Your task to perform on an android device: Turn off the flashlight Image 0: 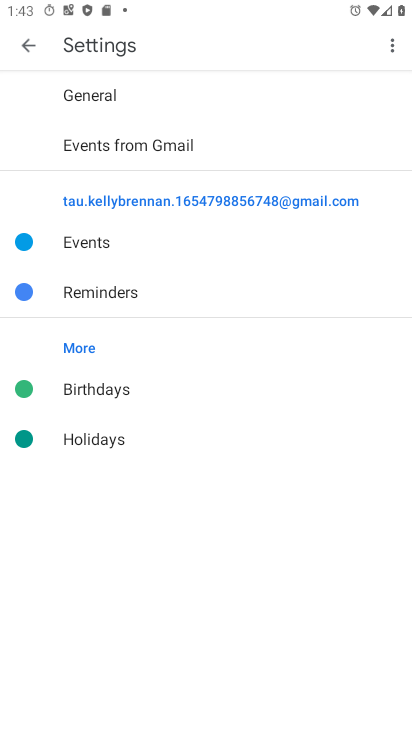
Step 0: press home button
Your task to perform on an android device: Turn off the flashlight Image 1: 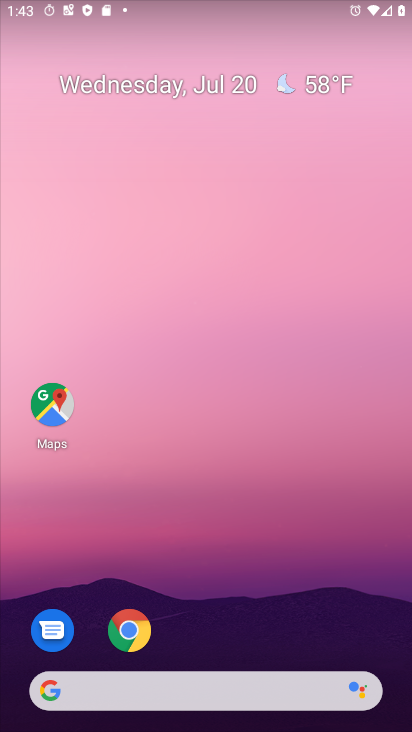
Step 1: task complete